Your task to perform on an android device: open app "PUBG MOBILE" (install if not already installed) and go to login screen Image 0: 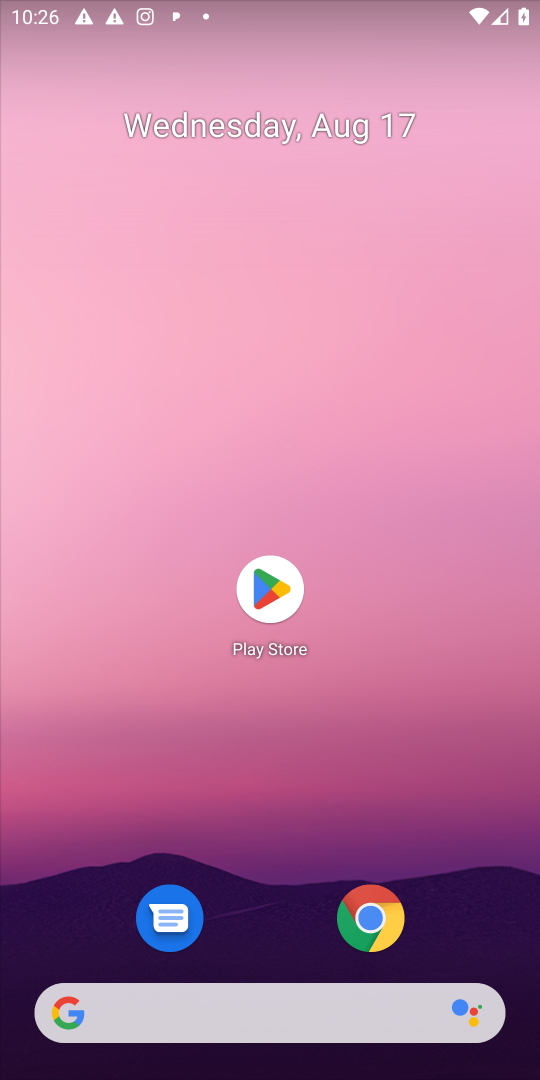
Step 0: press home button
Your task to perform on an android device: open app "PUBG MOBILE" (install if not already installed) and go to login screen Image 1: 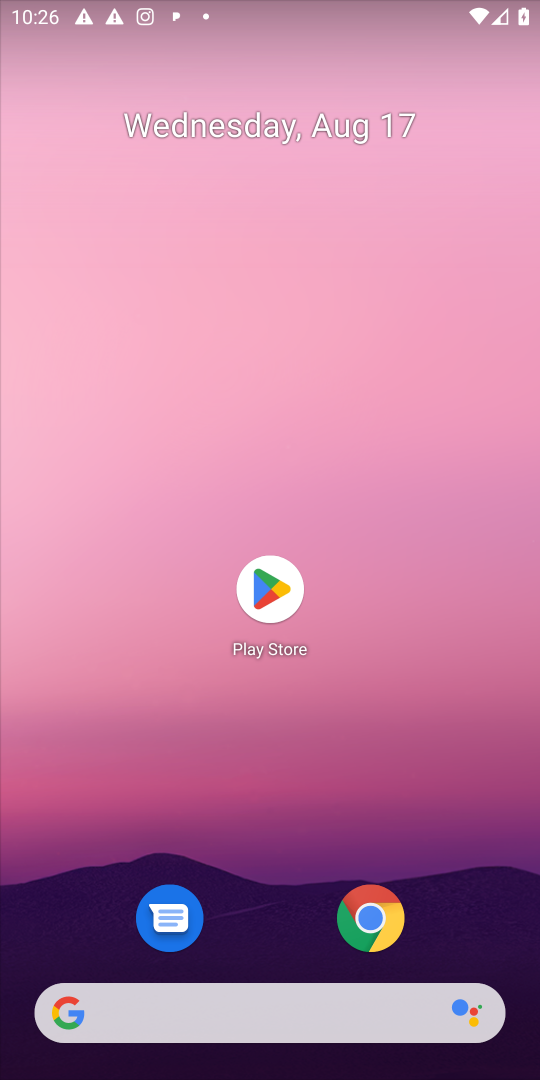
Step 1: click (257, 575)
Your task to perform on an android device: open app "PUBG MOBILE" (install if not already installed) and go to login screen Image 2: 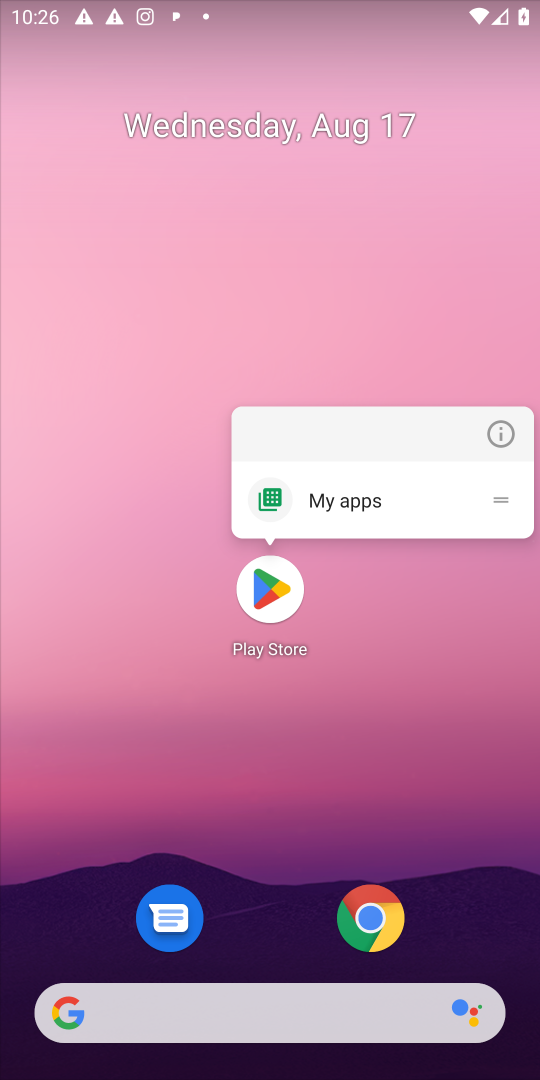
Step 2: click (260, 594)
Your task to perform on an android device: open app "PUBG MOBILE" (install if not already installed) and go to login screen Image 3: 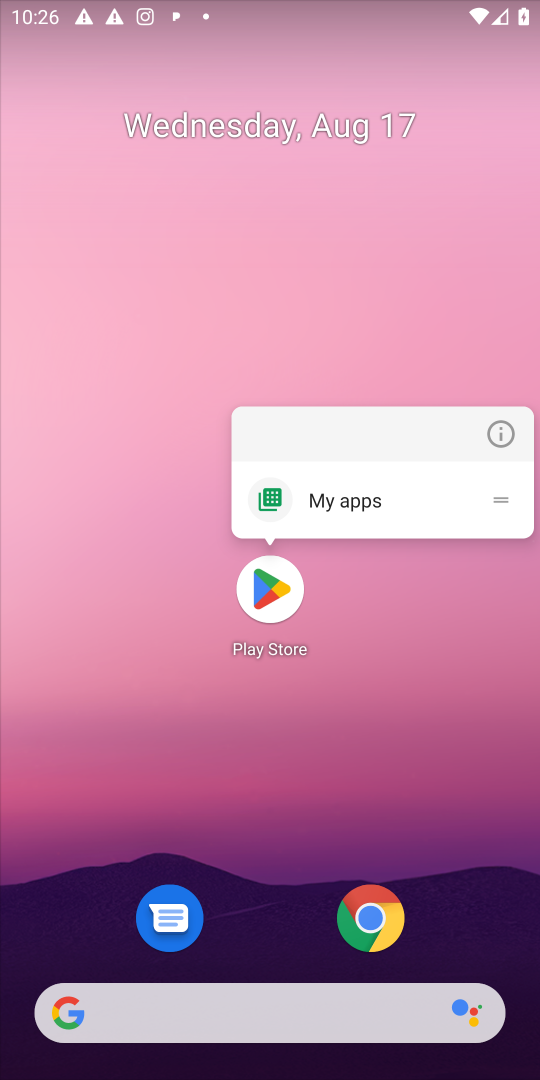
Step 3: click (260, 591)
Your task to perform on an android device: open app "PUBG MOBILE" (install if not already installed) and go to login screen Image 4: 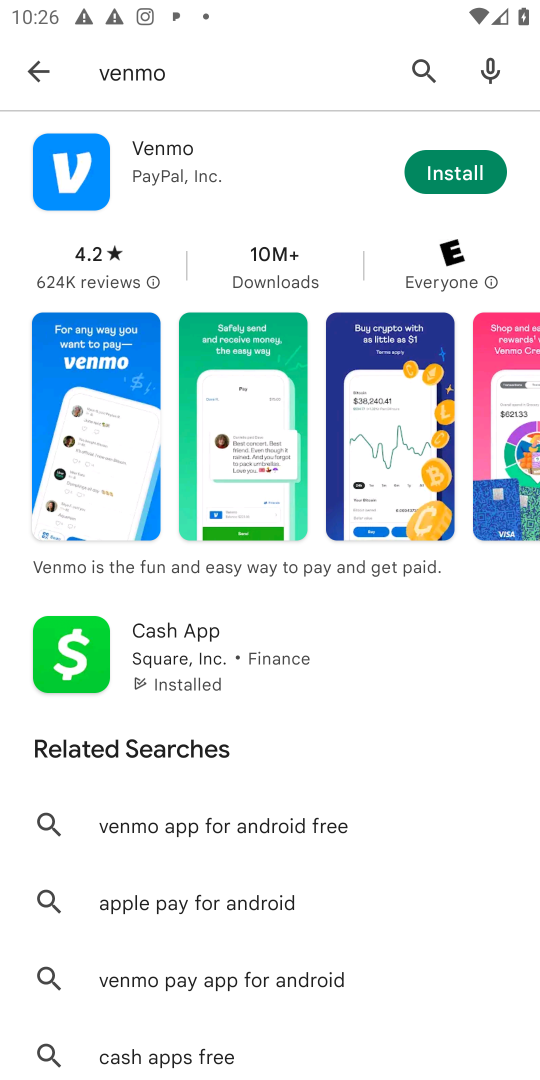
Step 4: click (427, 68)
Your task to perform on an android device: open app "PUBG MOBILE" (install if not already installed) and go to login screen Image 5: 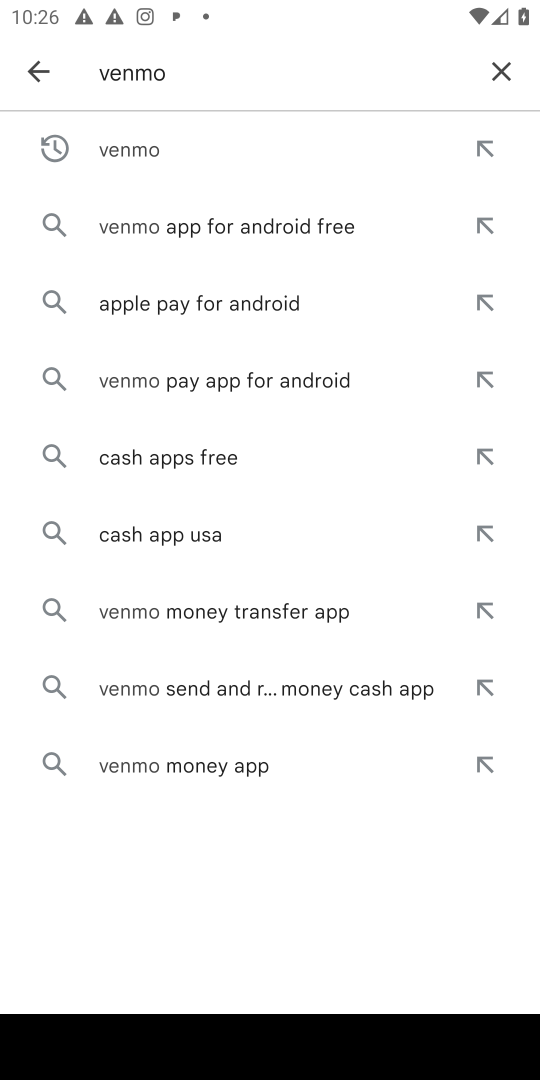
Step 5: click (493, 75)
Your task to perform on an android device: open app "PUBG MOBILE" (install if not already installed) and go to login screen Image 6: 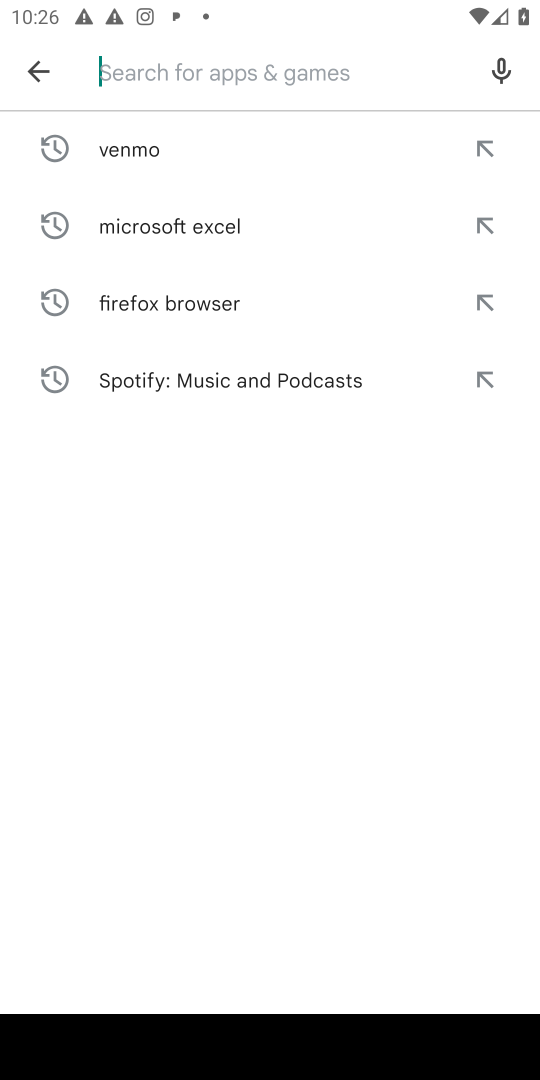
Step 6: type "PUBG MOBILE"
Your task to perform on an android device: open app "PUBG MOBILE" (install if not already installed) and go to login screen Image 7: 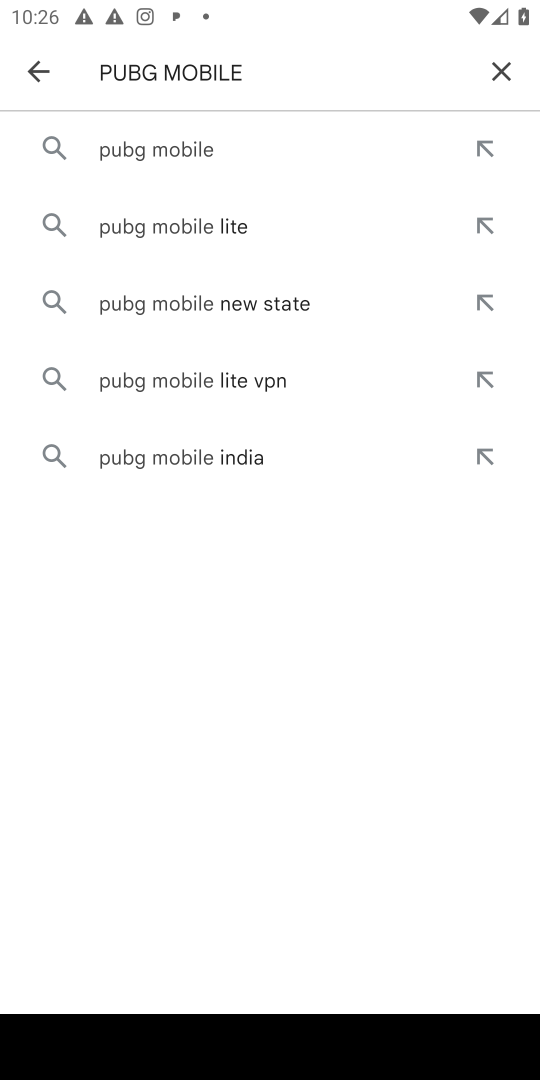
Step 7: click (138, 152)
Your task to perform on an android device: open app "PUBG MOBILE" (install if not already installed) and go to login screen Image 8: 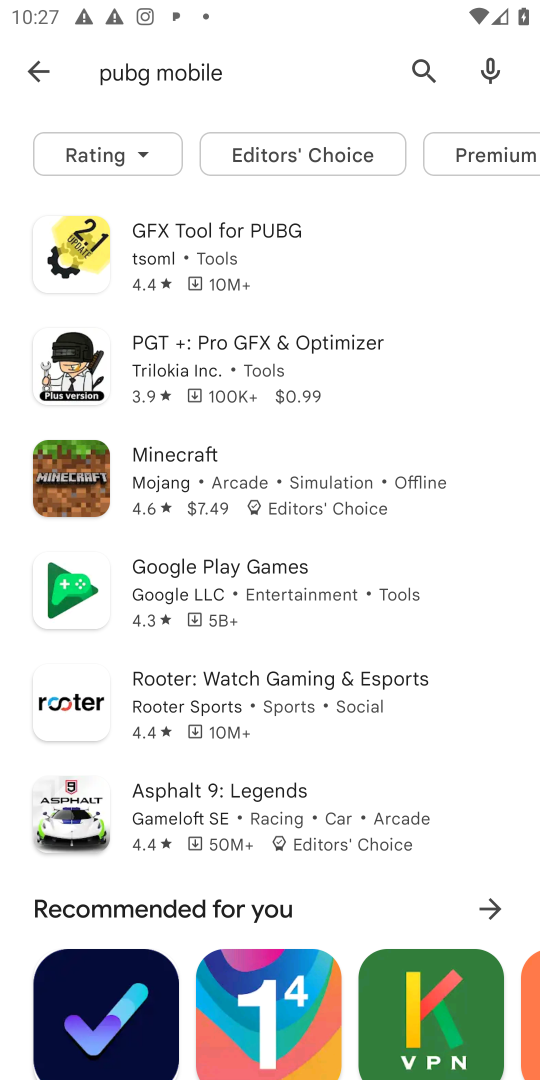
Step 8: task complete